Your task to perform on an android device: Clear all items from cart on newegg.com. Search for razer nari on newegg.com, select the first entry, and add it to the cart. Image 0: 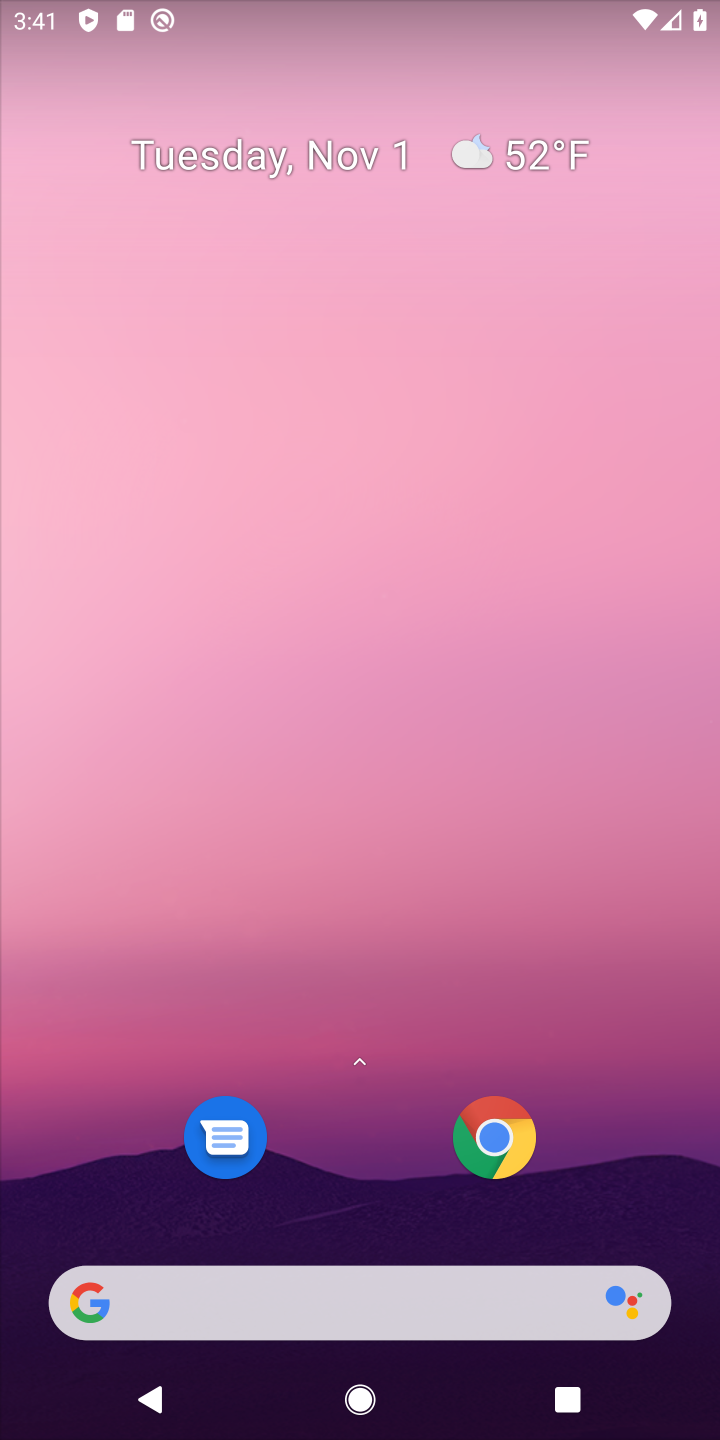
Step 0: click (481, 1288)
Your task to perform on an android device: Clear all items from cart on newegg.com. Search for razer nari on newegg.com, select the first entry, and add it to the cart. Image 1: 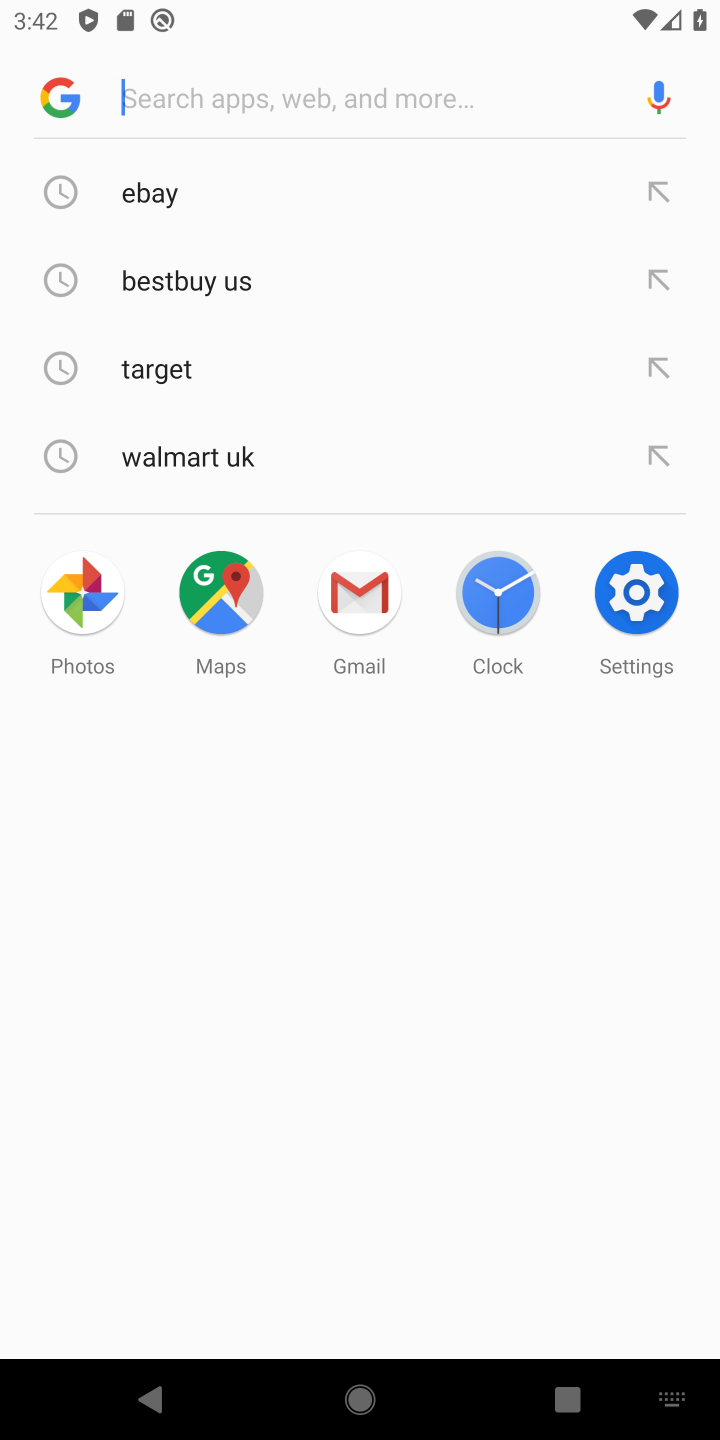
Step 1: type "newwgee"
Your task to perform on an android device: Clear all items from cart on newegg.com. Search for razer nari on newegg.com, select the first entry, and add it to the cart. Image 2: 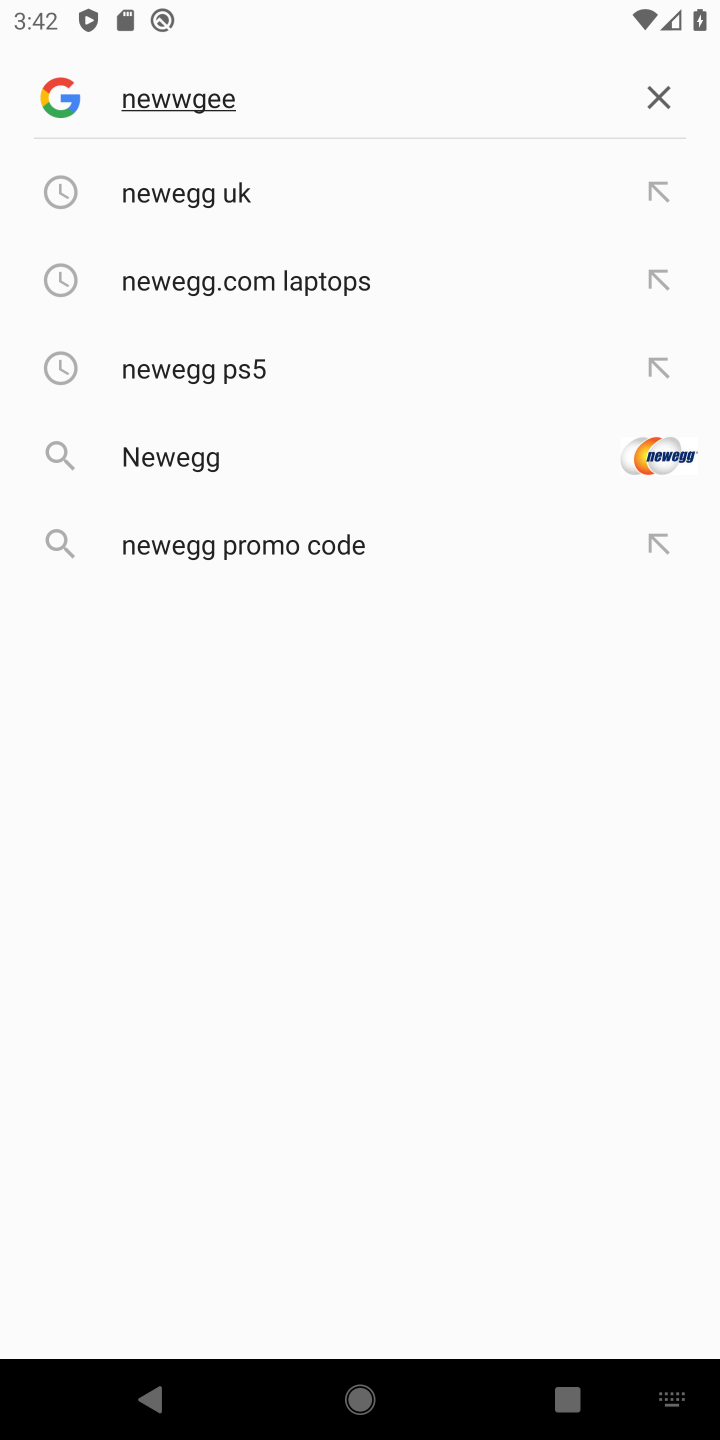
Step 2: click (336, 172)
Your task to perform on an android device: Clear all items from cart on newegg.com. Search for razer nari on newegg.com, select the first entry, and add it to the cart. Image 3: 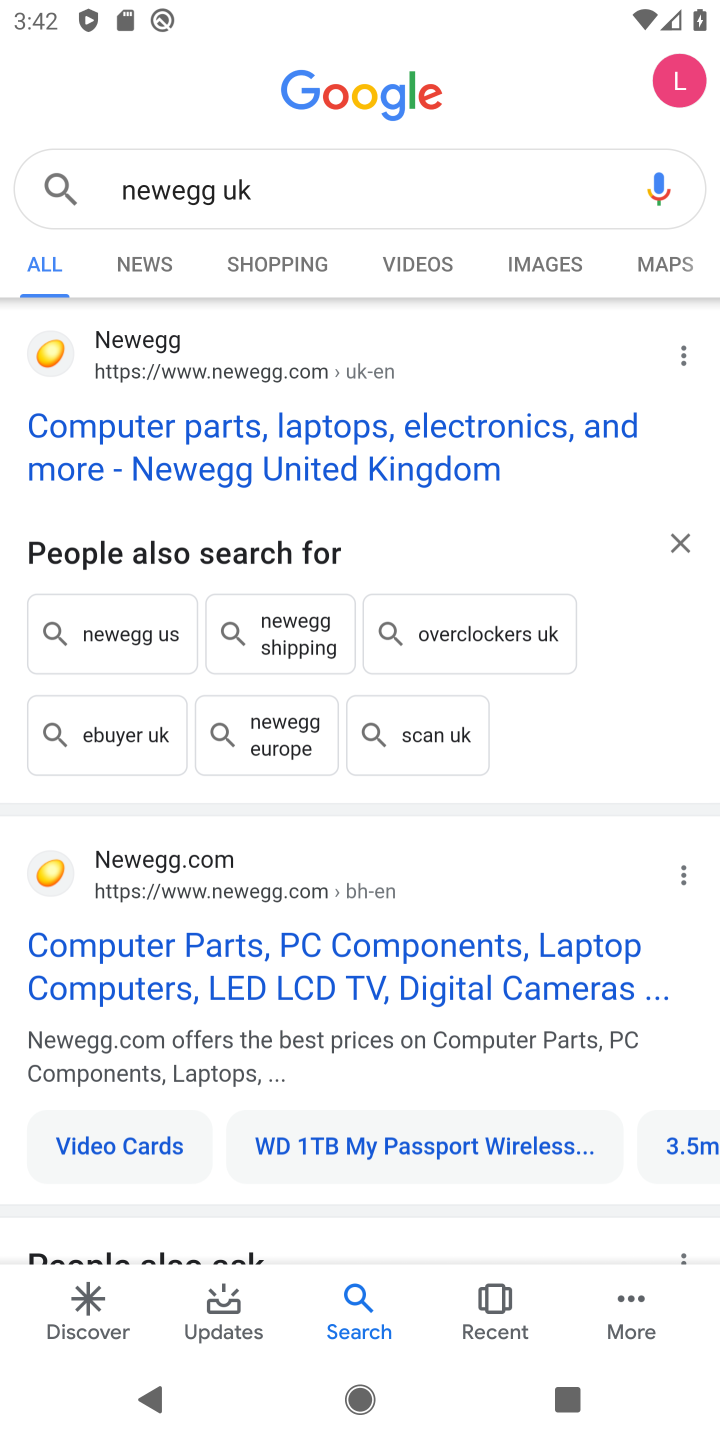
Step 3: click (194, 427)
Your task to perform on an android device: Clear all items from cart on newegg.com. Search for razer nari on newegg.com, select the first entry, and add it to the cart. Image 4: 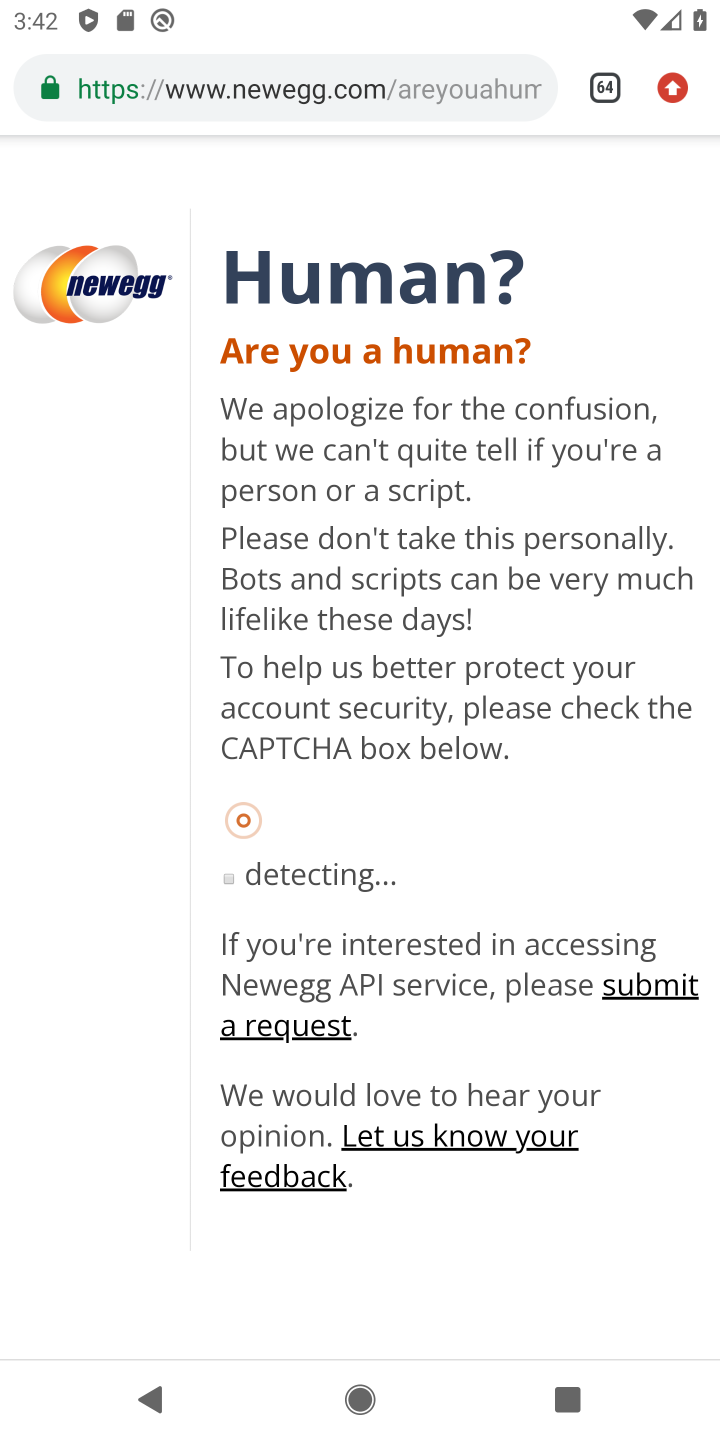
Step 4: task complete